Your task to perform on an android device: Go to display settings Image 0: 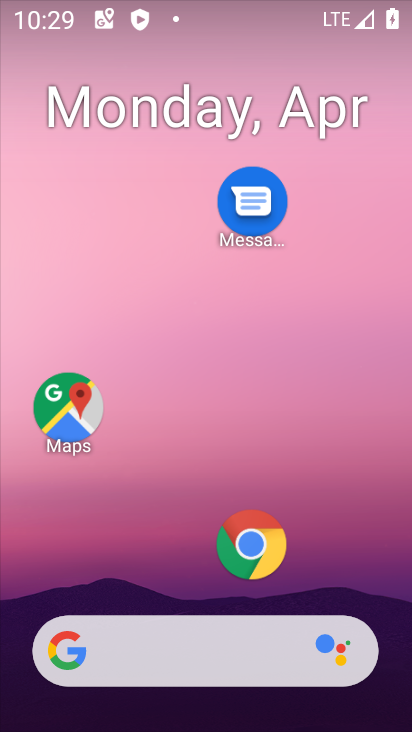
Step 0: press home button
Your task to perform on an android device: Go to display settings Image 1: 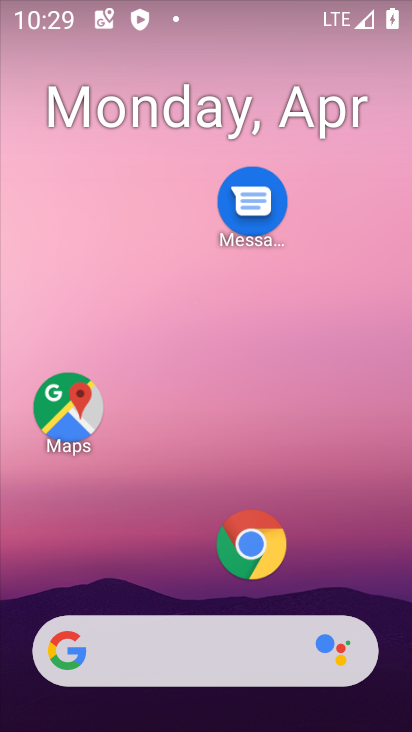
Step 1: drag from (192, 590) to (201, 96)
Your task to perform on an android device: Go to display settings Image 2: 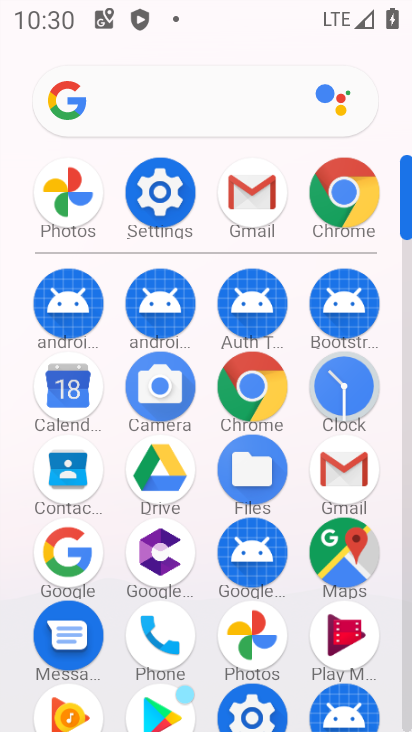
Step 2: click (159, 177)
Your task to perform on an android device: Go to display settings Image 3: 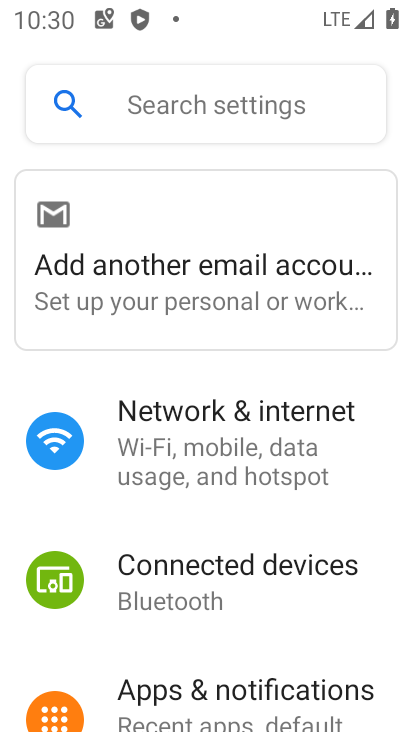
Step 3: drag from (223, 625) to (285, 143)
Your task to perform on an android device: Go to display settings Image 4: 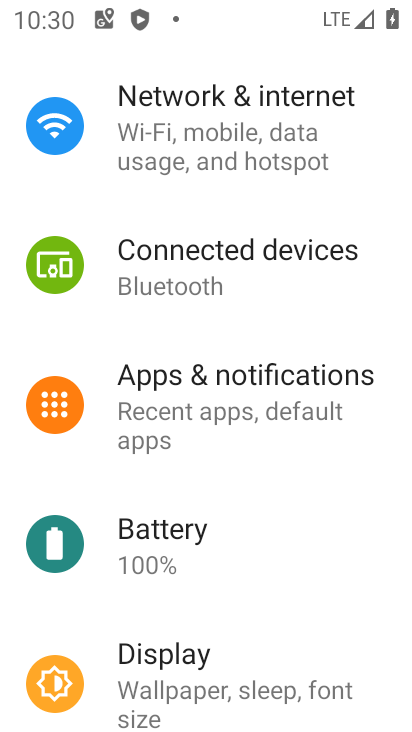
Step 4: click (222, 658)
Your task to perform on an android device: Go to display settings Image 5: 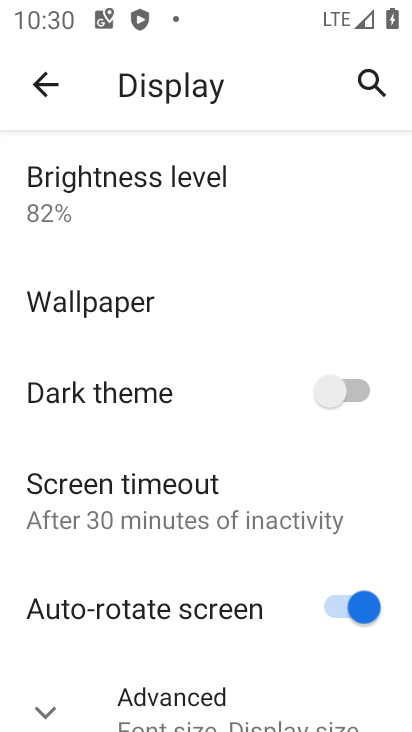
Step 5: click (48, 697)
Your task to perform on an android device: Go to display settings Image 6: 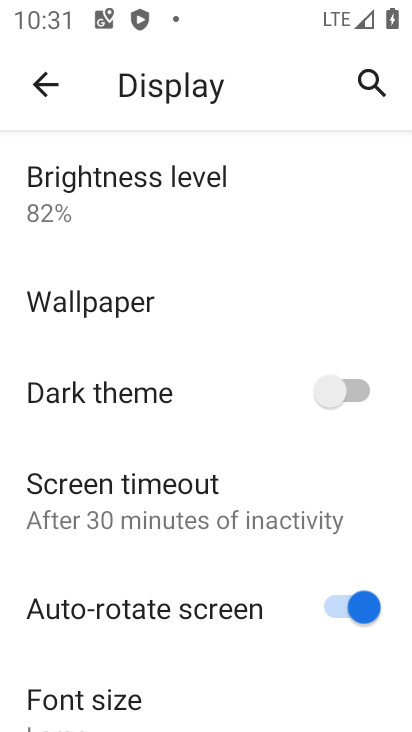
Step 6: task complete